Your task to perform on an android device: toggle translation in the chrome app Image 0: 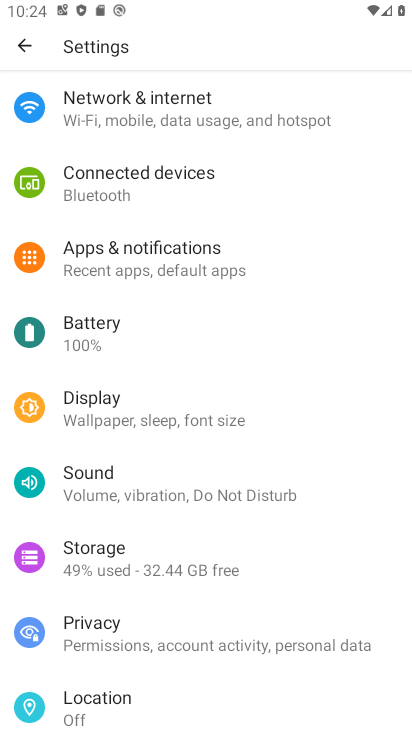
Step 0: press home button
Your task to perform on an android device: toggle translation in the chrome app Image 1: 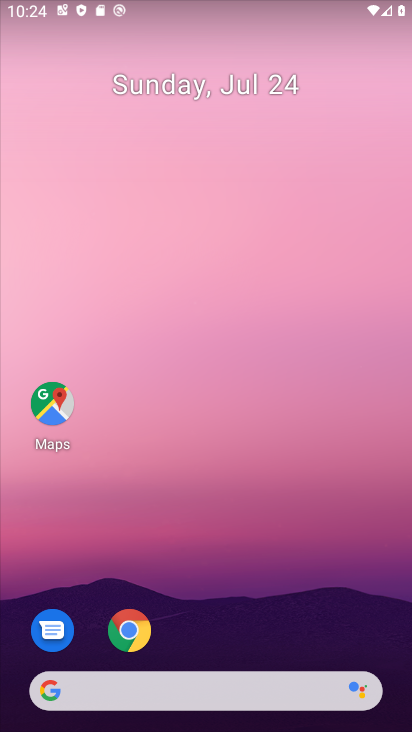
Step 1: click (137, 626)
Your task to perform on an android device: toggle translation in the chrome app Image 2: 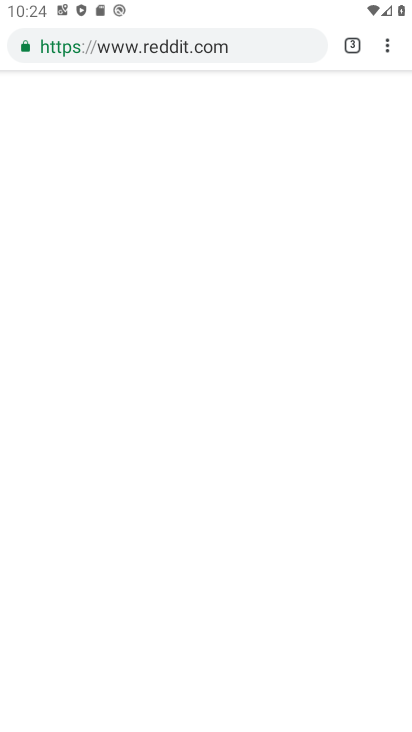
Step 2: click (390, 56)
Your task to perform on an android device: toggle translation in the chrome app Image 3: 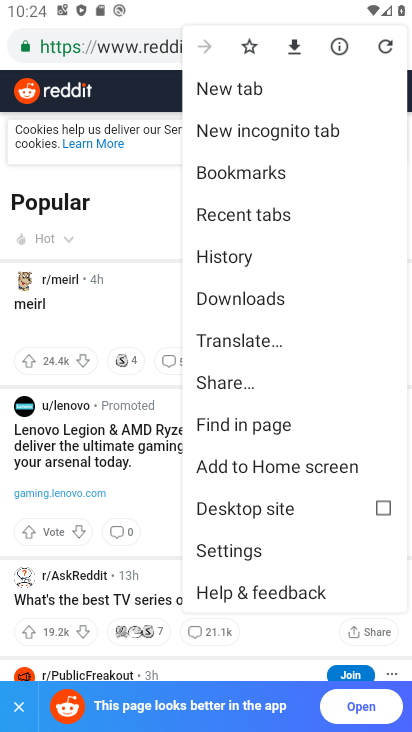
Step 3: click (222, 542)
Your task to perform on an android device: toggle translation in the chrome app Image 4: 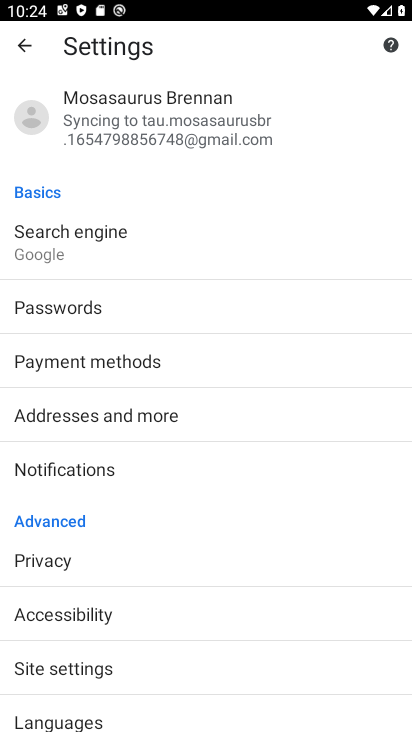
Step 4: click (127, 709)
Your task to perform on an android device: toggle translation in the chrome app Image 5: 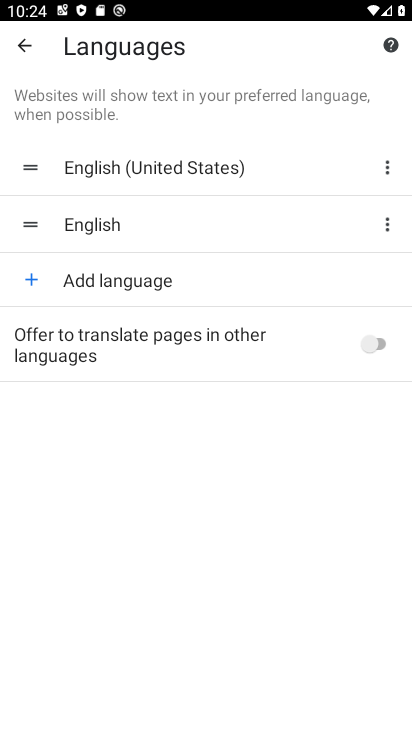
Step 5: click (381, 354)
Your task to perform on an android device: toggle translation in the chrome app Image 6: 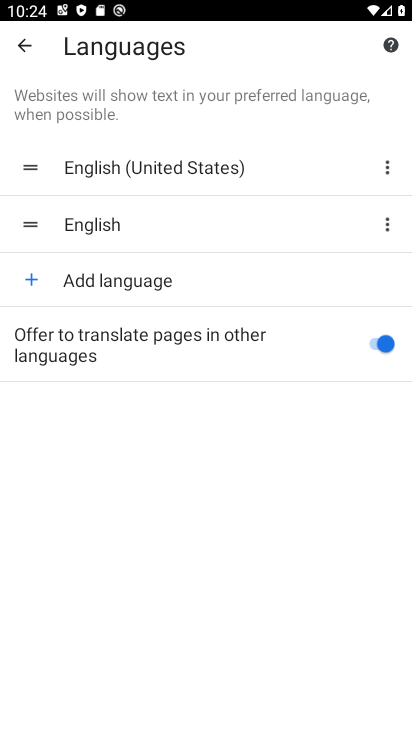
Step 6: task complete